Your task to perform on an android device: set the stopwatch Image 0: 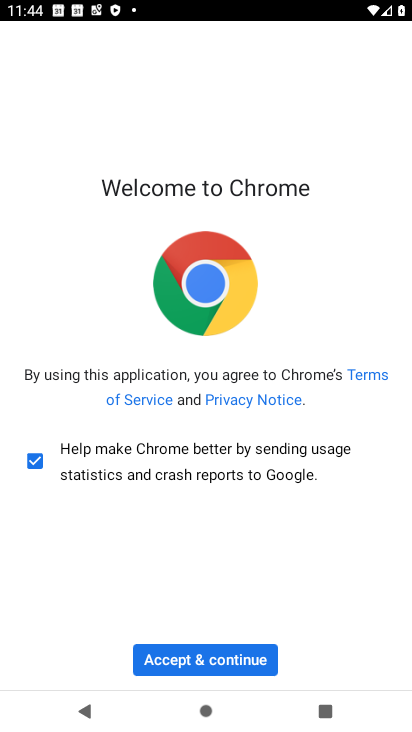
Step 0: press home button
Your task to perform on an android device: set the stopwatch Image 1: 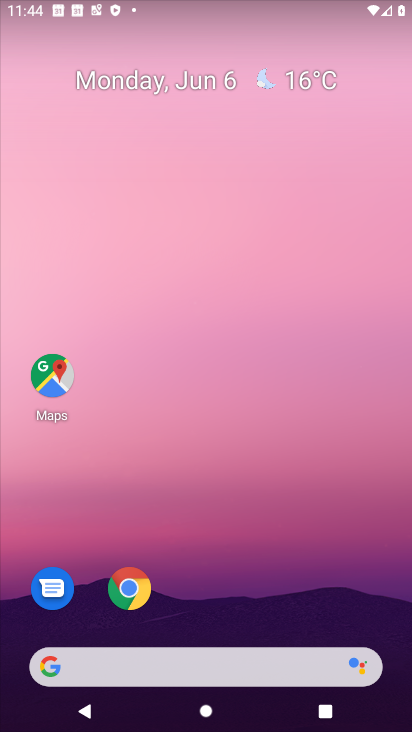
Step 1: drag from (196, 616) to (180, 65)
Your task to perform on an android device: set the stopwatch Image 2: 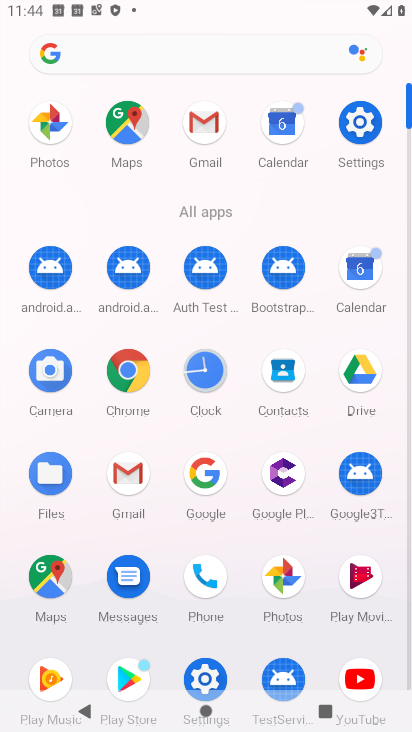
Step 2: click (208, 365)
Your task to perform on an android device: set the stopwatch Image 3: 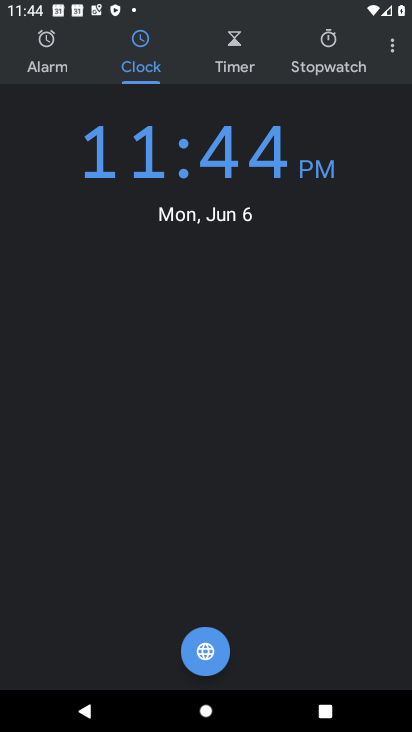
Step 3: click (326, 54)
Your task to perform on an android device: set the stopwatch Image 4: 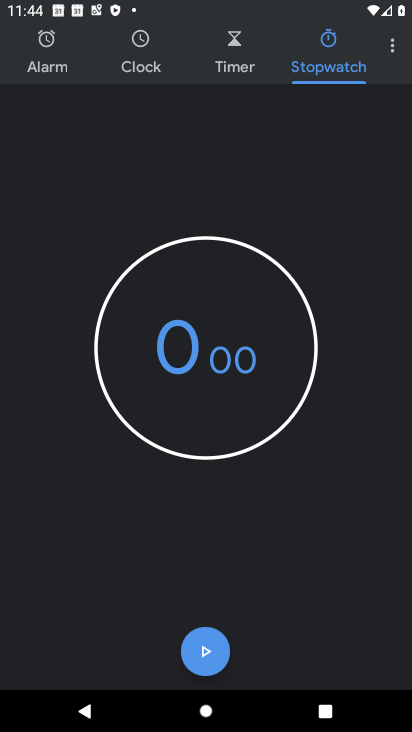
Step 4: task complete